Your task to perform on an android device: open a new tab in the chrome app Image 0: 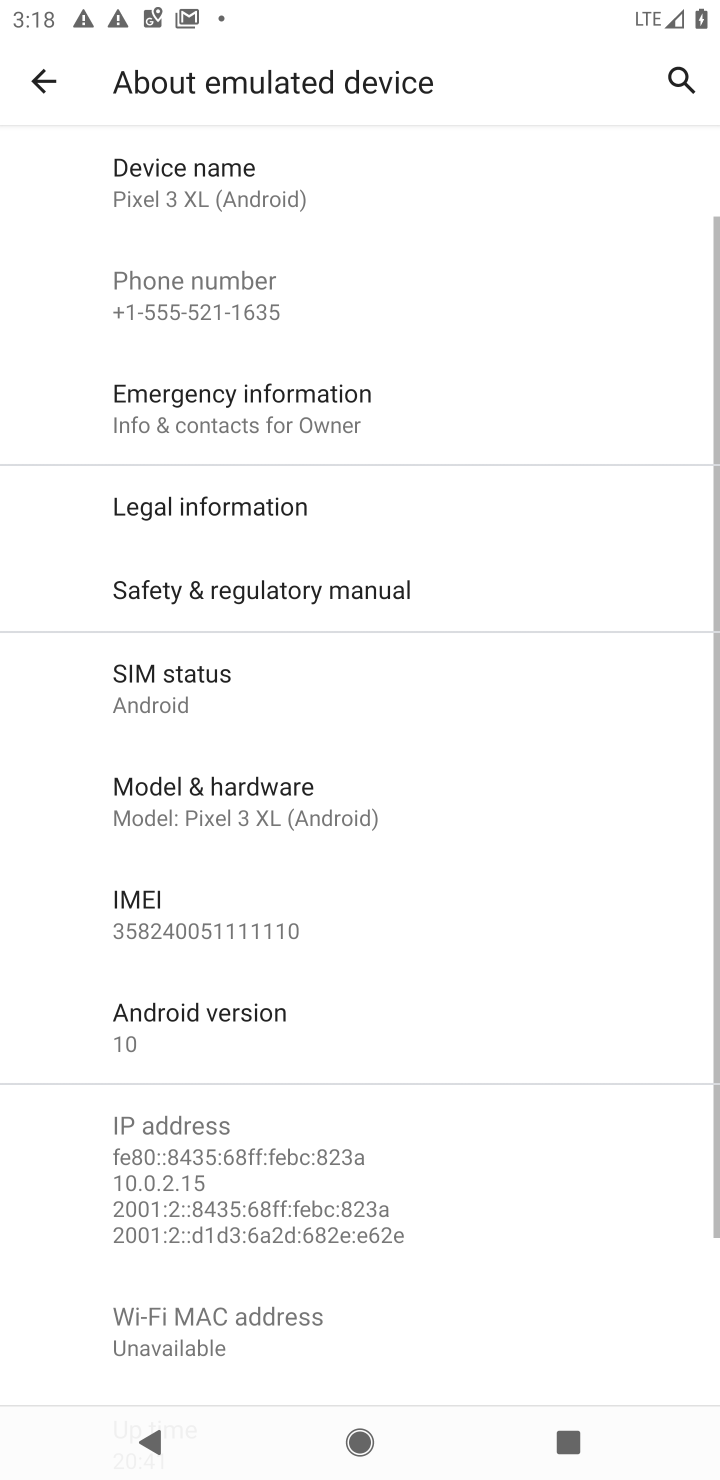
Step 0: press home button
Your task to perform on an android device: open a new tab in the chrome app Image 1: 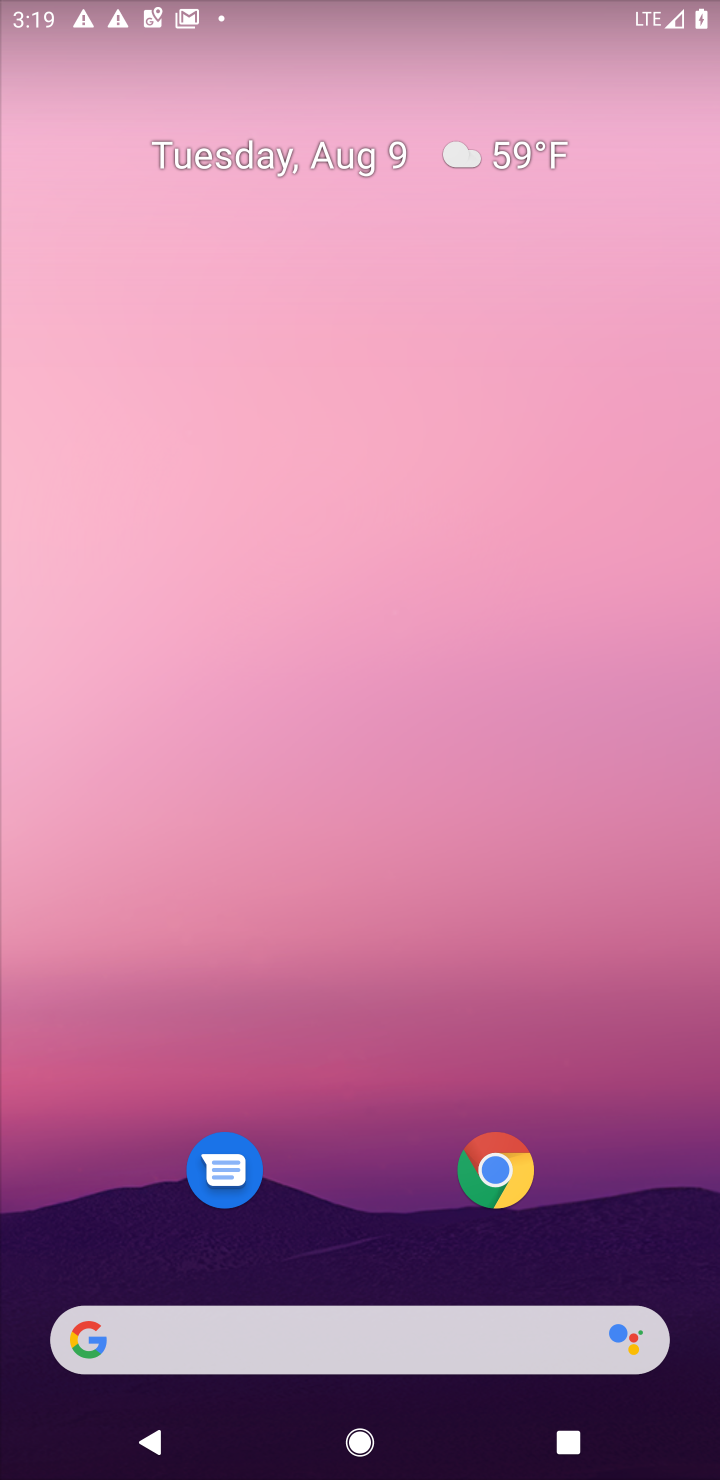
Step 1: press home button
Your task to perform on an android device: open a new tab in the chrome app Image 2: 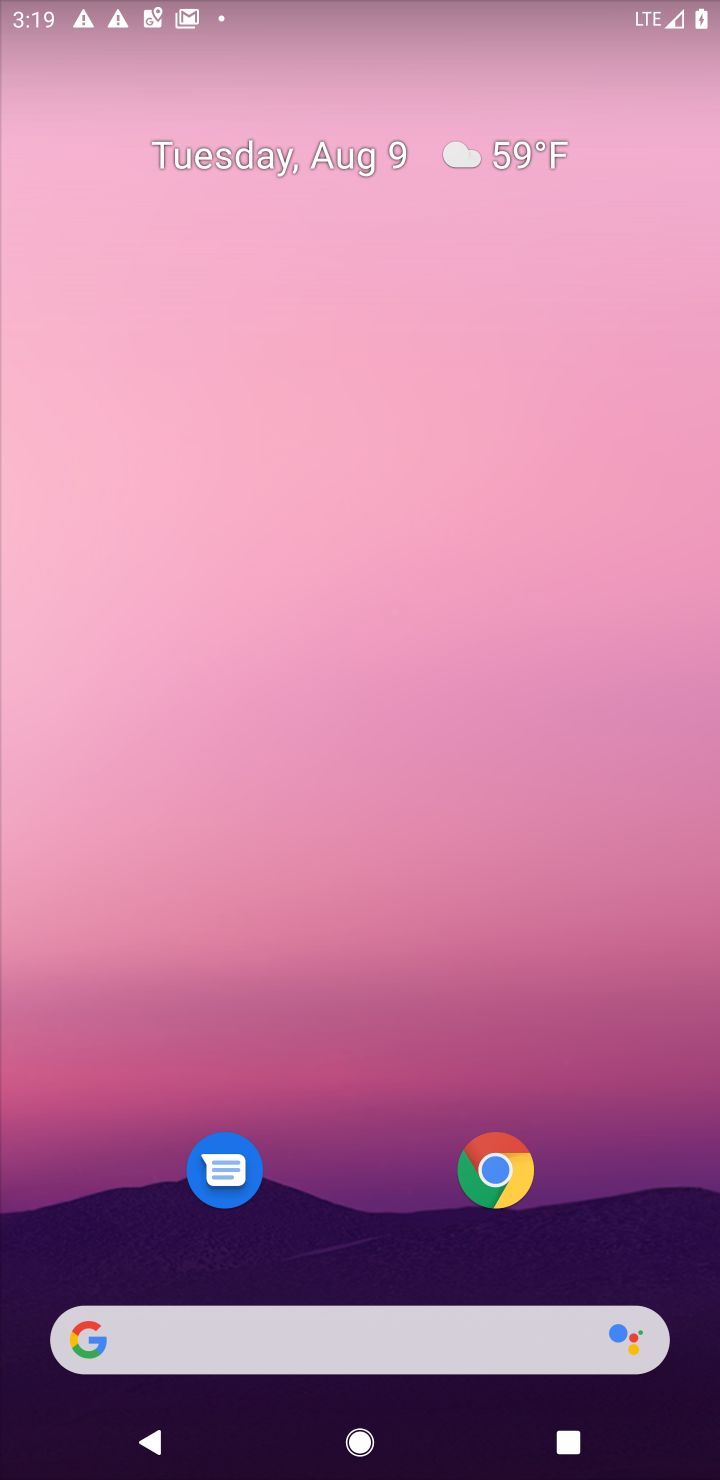
Step 2: click (476, 1172)
Your task to perform on an android device: open a new tab in the chrome app Image 3: 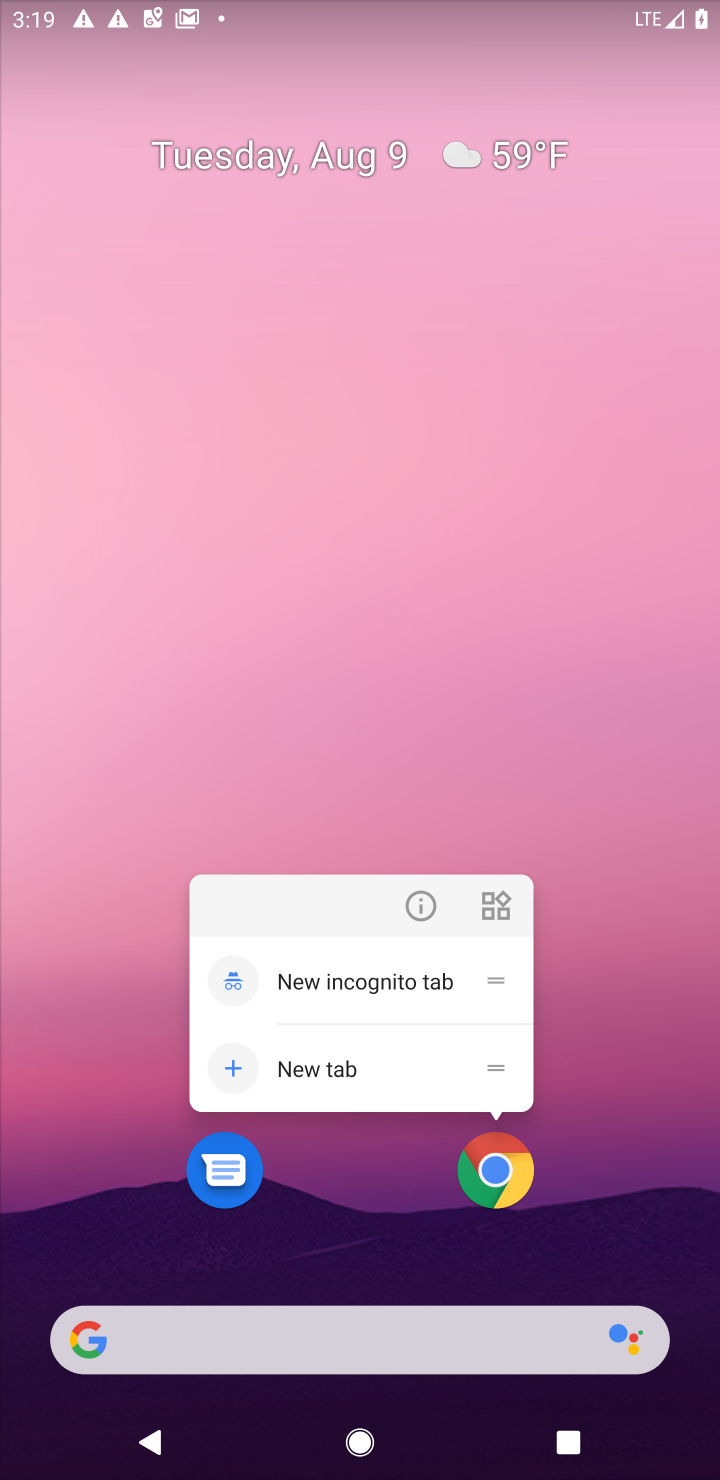
Step 3: click (517, 1178)
Your task to perform on an android device: open a new tab in the chrome app Image 4: 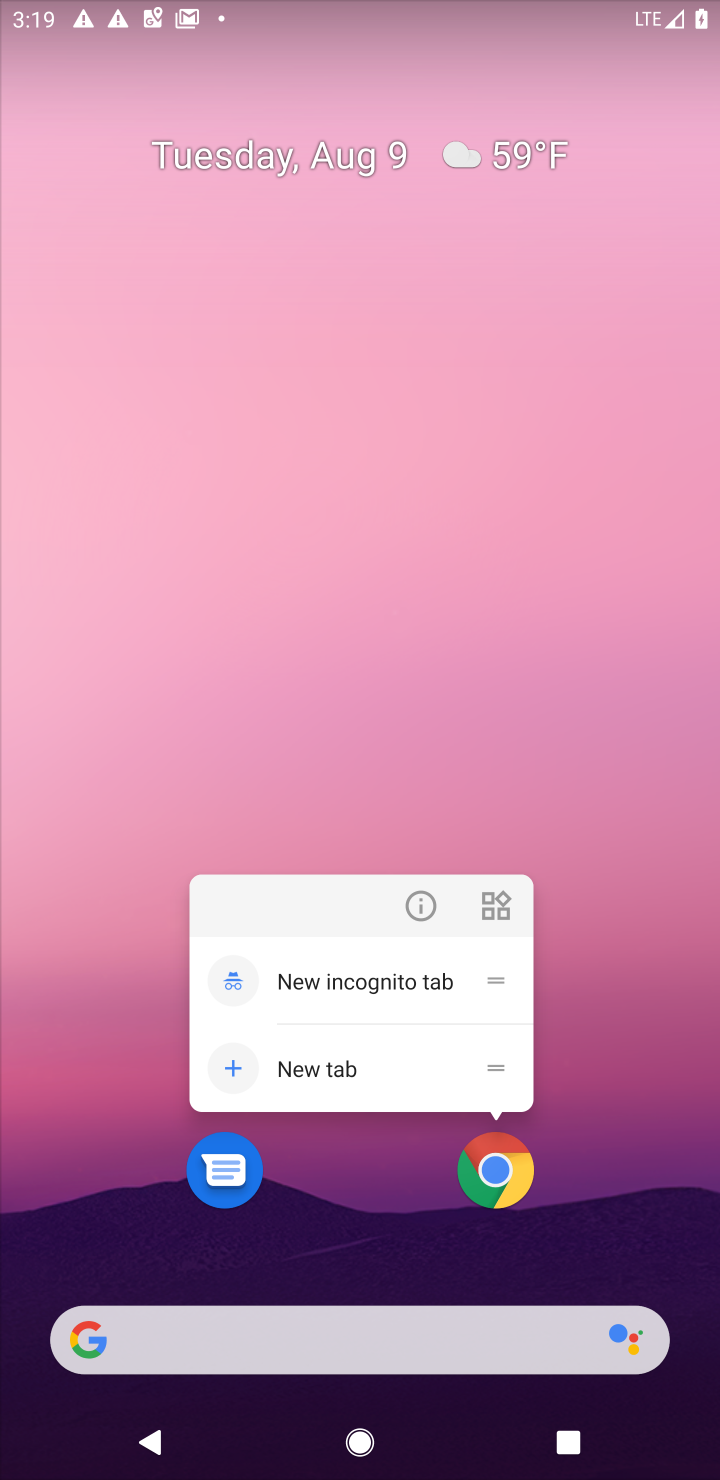
Step 4: click (517, 1172)
Your task to perform on an android device: open a new tab in the chrome app Image 5: 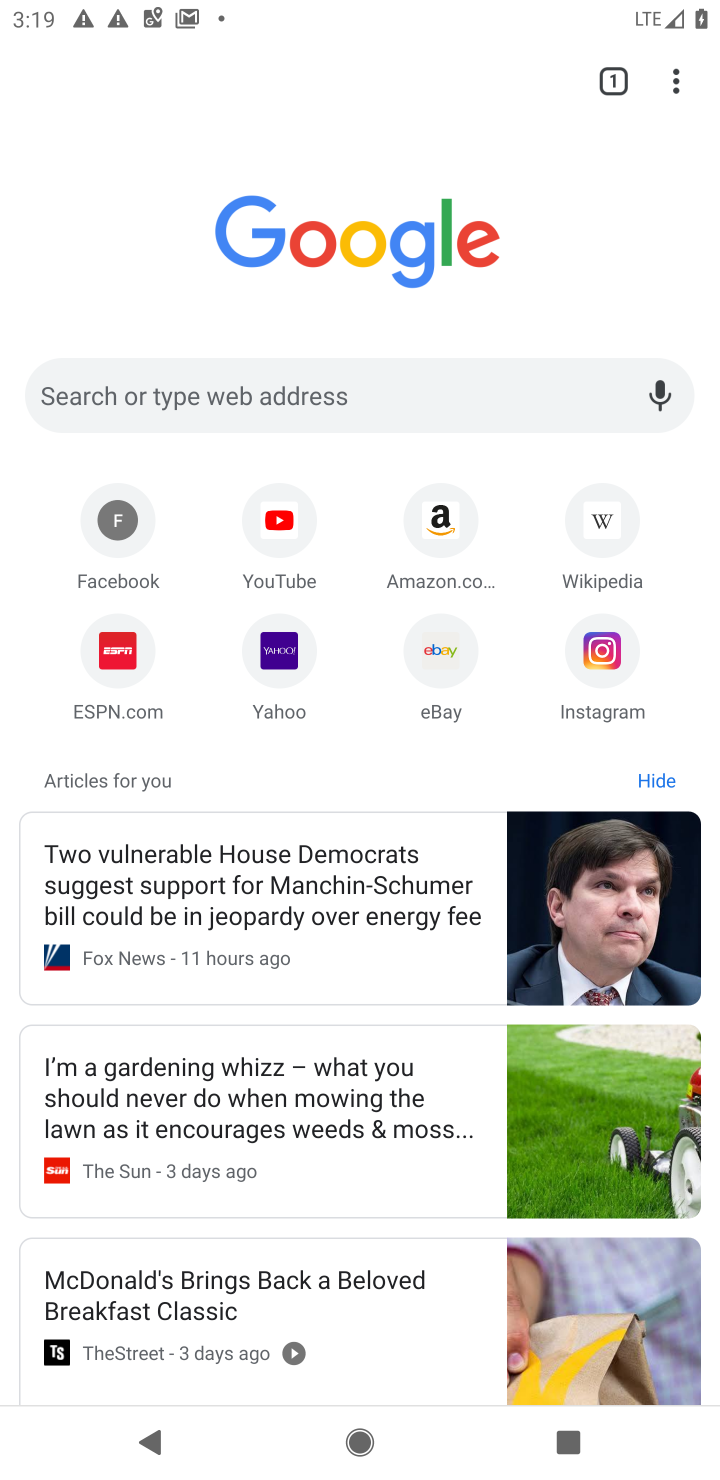
Step 5: task complete